Your task to perform on an android device: Show me popular videos on Youtube Image 0: 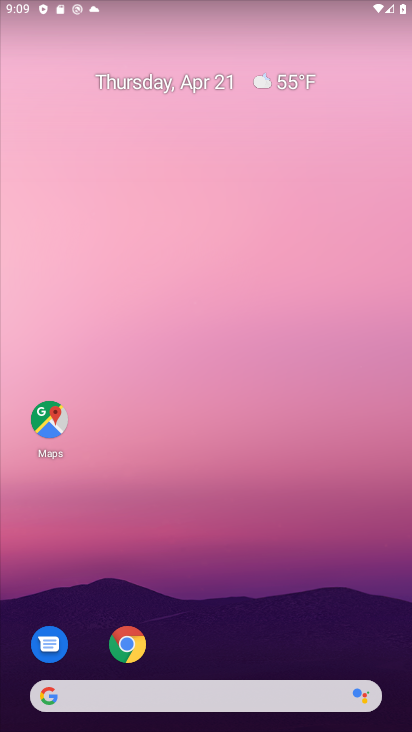
Step 0: drag from (276, 561) to (320, 48)
Your task to perform on an android device: Show me popular videos on Youtube Image 1: 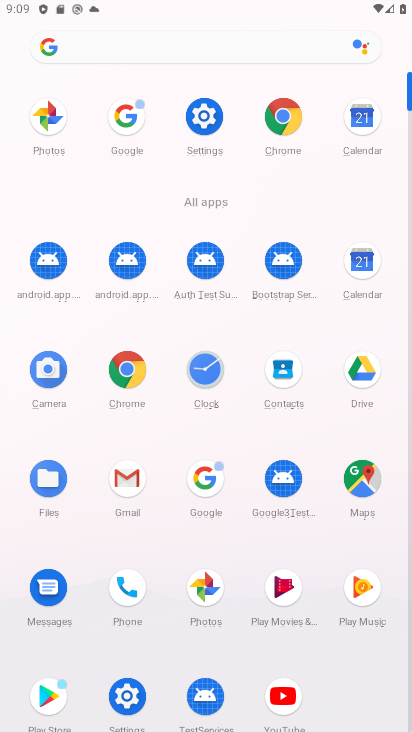
Step 1: click (283, 698)
Your task to perform on an android device: Show me popular videos on Youtube Image 2: 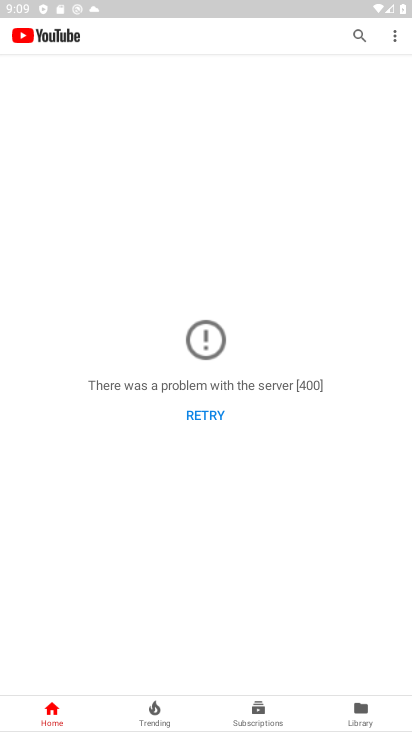
Step 2: task complete